Your task to perform on an android device: change the clock display to digital Image 0: 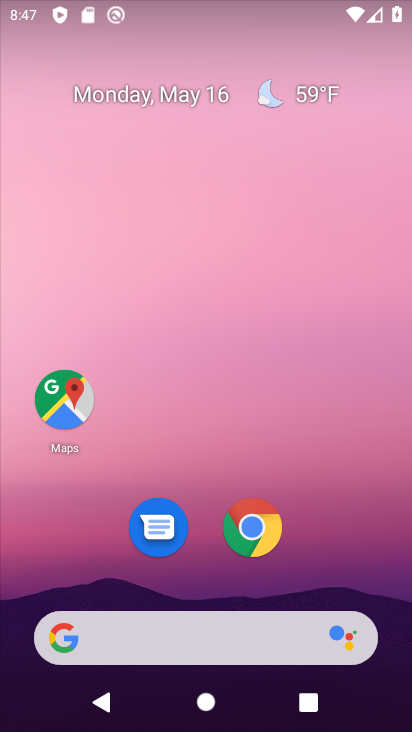
Step 0: drag from (399, 641) to (366, 376)
Your task to perform on an android device: change the clock display to digital Image 1: 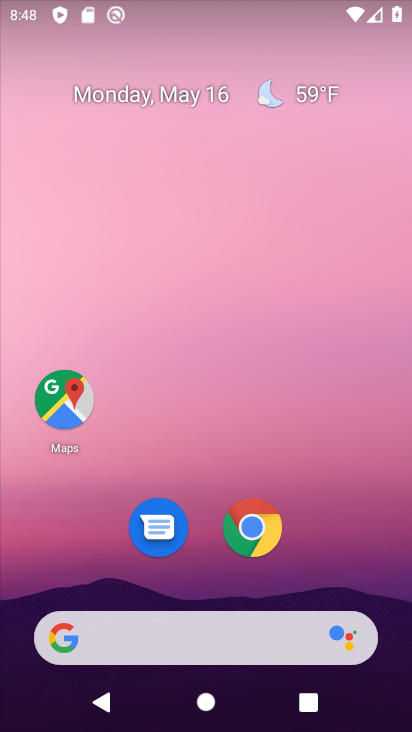
Step 1: drag from (396, 645) to (384, 296)
Your task to perform on an android device: change the clock display to digital Image 2: 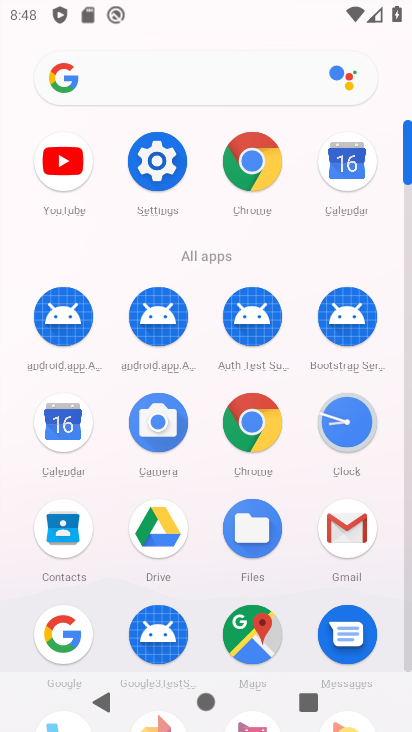
Step 2: click (159, 168)
Your task to perform on an android device: change the clock display to digital Image 3: 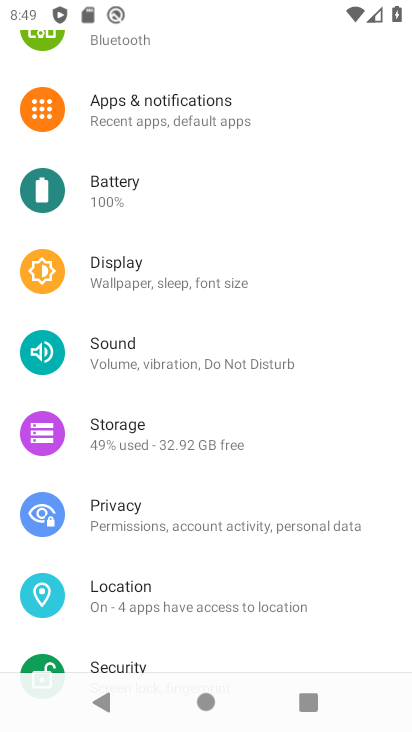
Step 3: click (135, 265)
Your task to perform on an android device: change the clock display to digital Image 4: 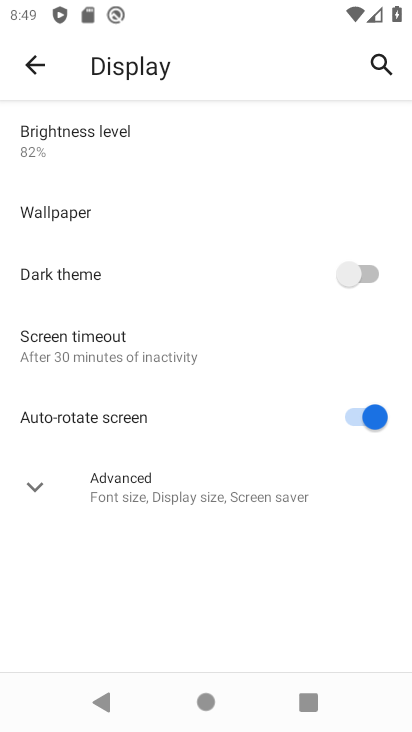
Step 4: drag from (239, 196) to (265, 377)
Your task to perform on an android device: change the clock display to digital Image 5: 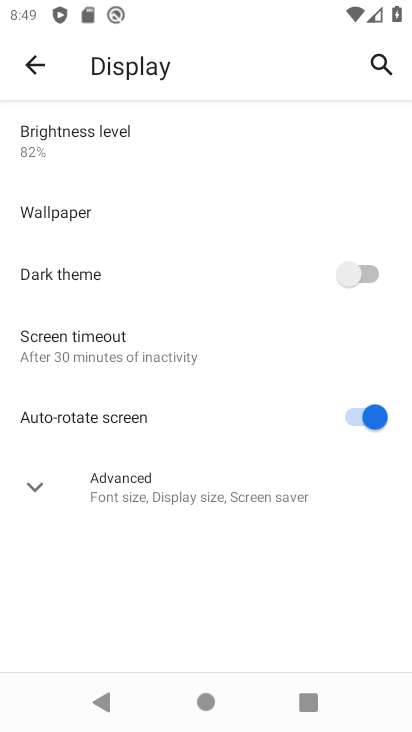
Step 5: click (31, 489)
Your task to perform on an android device: change the clock display to digital Image 6: 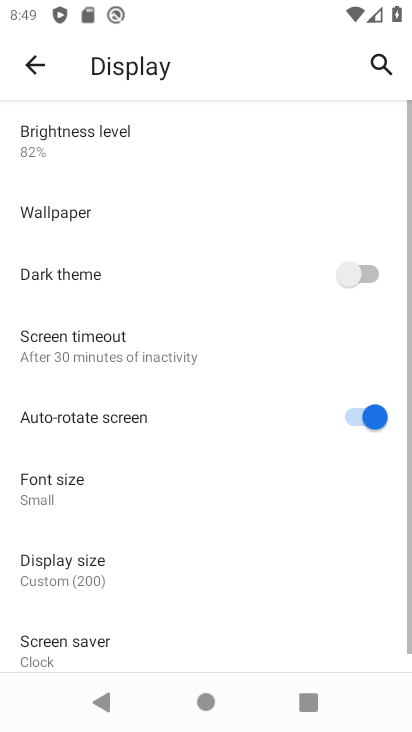
Step 6: press home button
Your task to perform on an android device: change the clock display to digital Image 7: 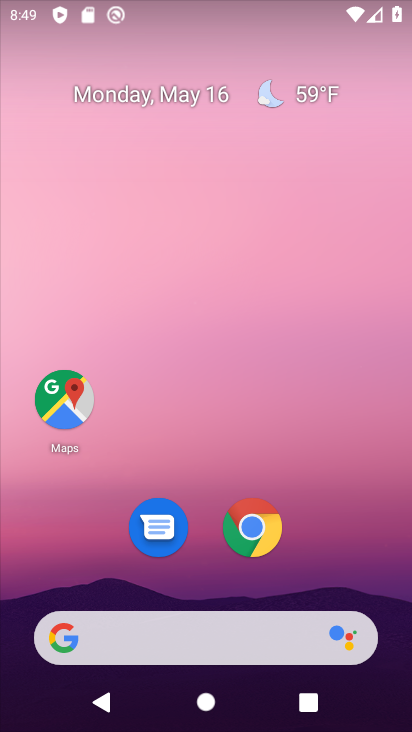
Step 7: drag from (391, 563) to (358, 135)
Your task to perform on an android device: change the clock display to digital Image 8: 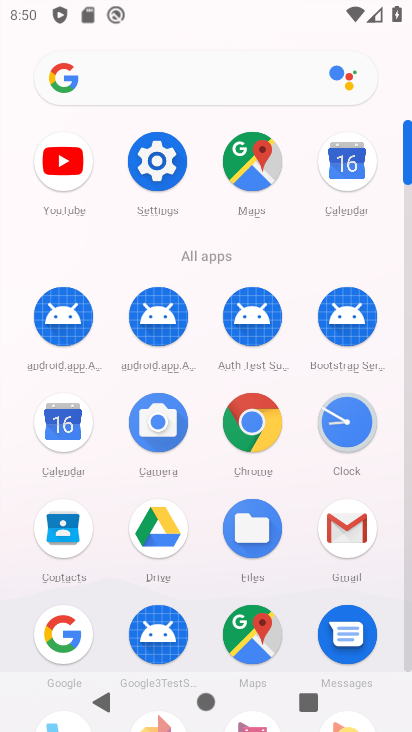
Step 8: click (341, 424)
Your task to perform on an android device: change the clock display to digital Image 9: 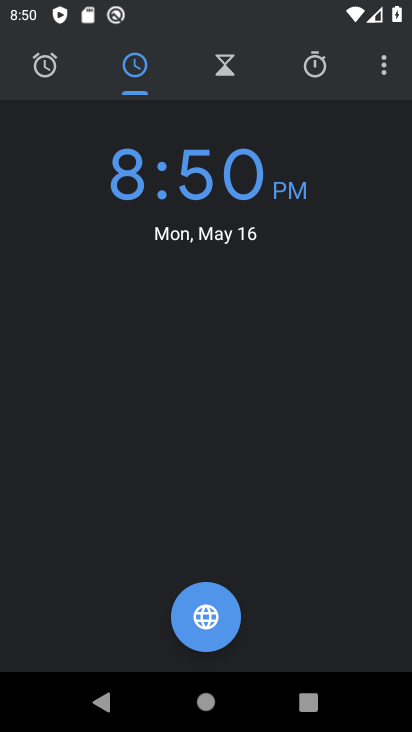
Step 9: click (383, 62)
Your task to perform on an android device: change the clock display to digital Image 10: 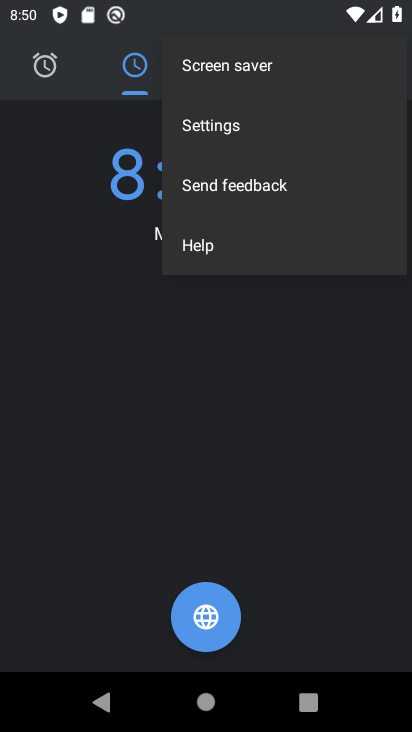
Step 10: click (220, 123)
Your task to perform on an android device: change the clock display to digital Image 11: 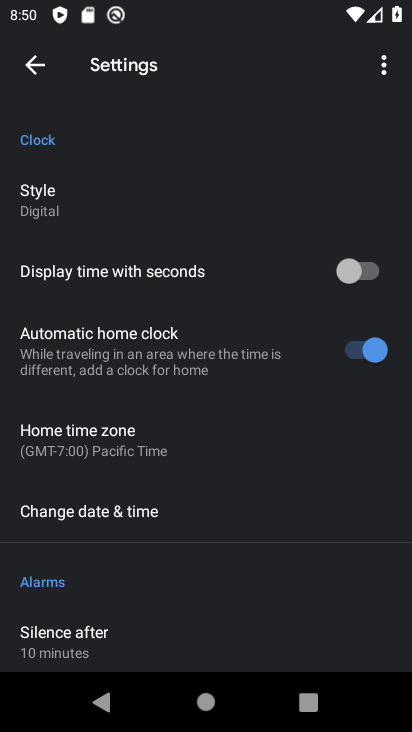
Step 11: click (32, 195)
Your task to perform on an android device: change the clock display to digital Image 12: 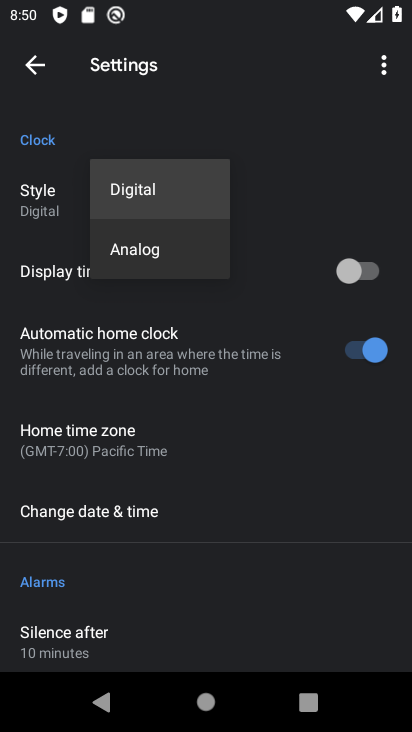
Step 12: click (152, 238)
Your task to perform on an android device: change the clock display to digital Image 13: 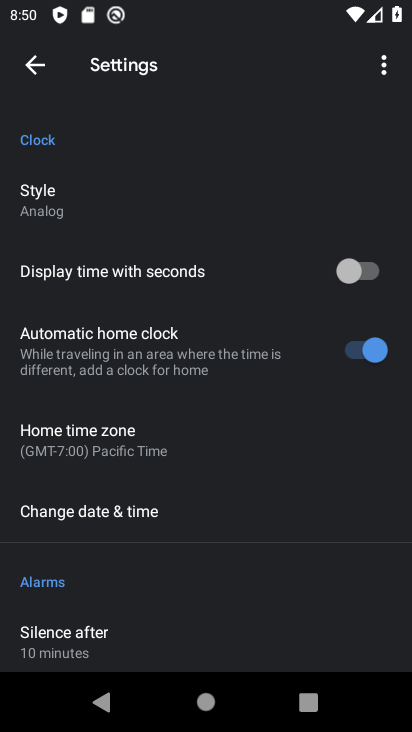
Step 13: click (28, 193)
Your task to perform on an android device: change the clock display to digital Image 14: 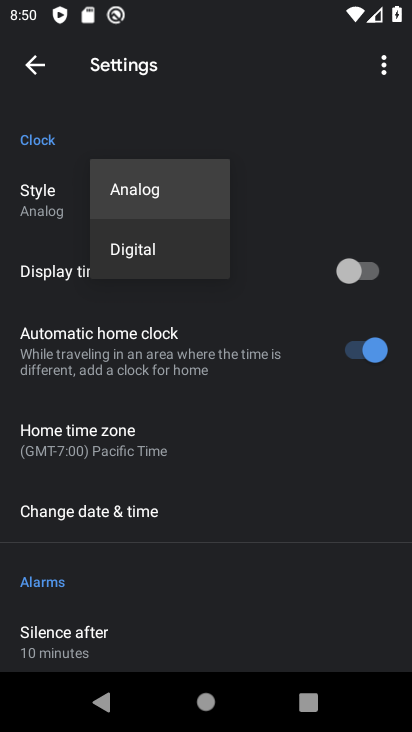
Step 14: click (142, 257)
Your task to perform on an android device: change the clock display to digital Image 15: 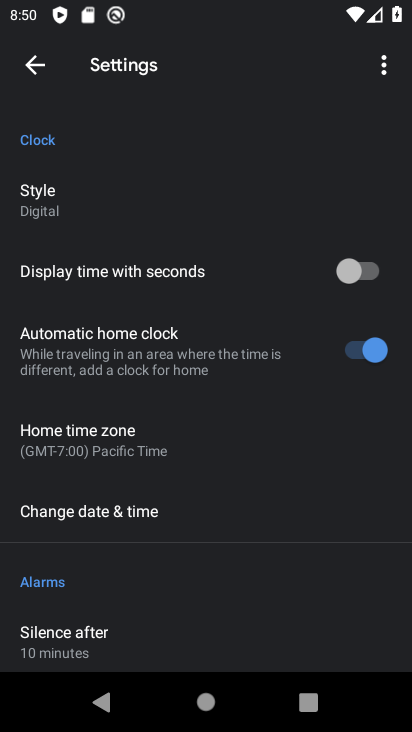
Step 15: task complete